Your task to perform on an android device: turn pop-ups on in chrome Image 0: 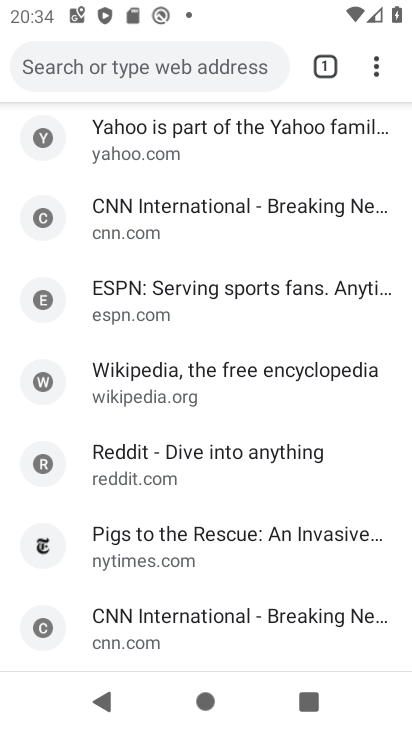
Step 0: press home button
Your task to perform on an android device: turn pop-ups on in chrome Image 1: 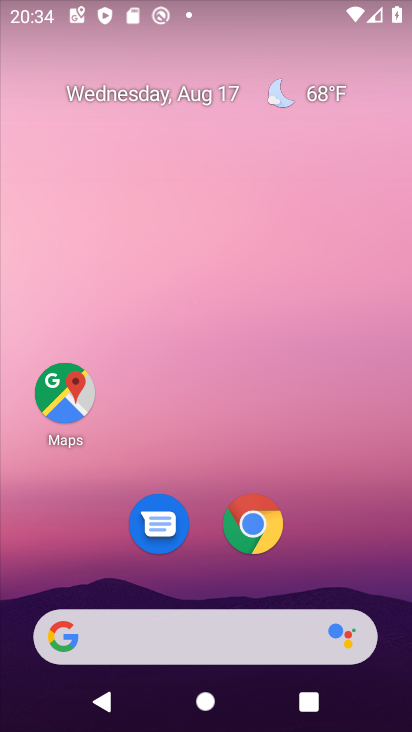
Step 1: click (258, 521)
Your task to perform on an android device: turn pop-ups on in chrome Image 2: 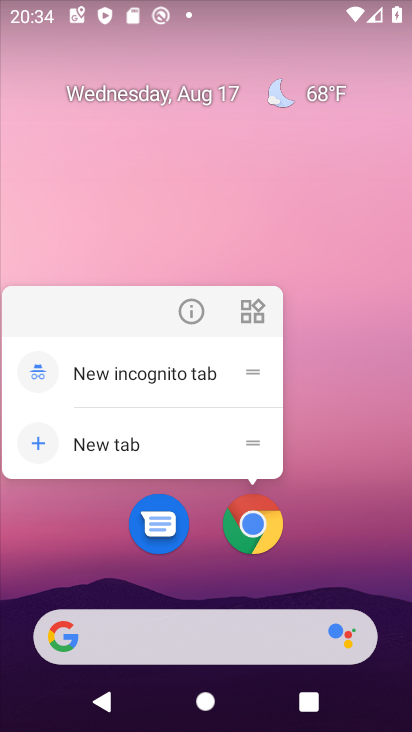
Step 2: click (257, 522)
Your task to perform on an android device: turn pop-ups on in chrome Image 3: 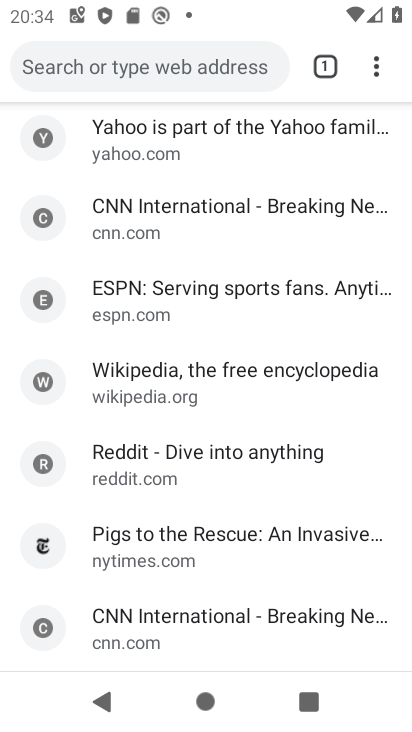
Step 3: press back button
Your task to perform on an android device: turn pop-ups on in chrome Image 4: 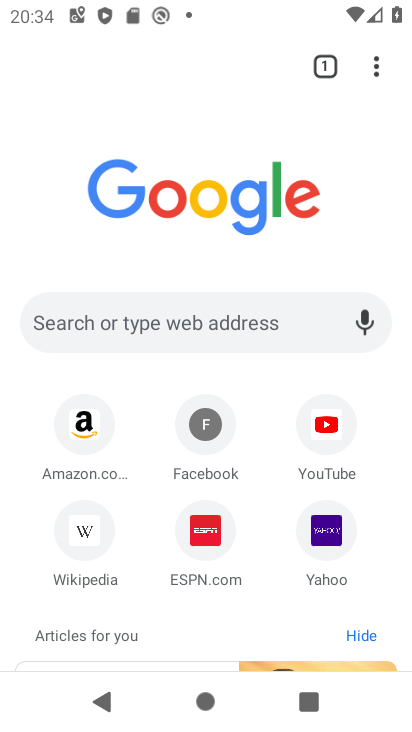
Step 4: click (377, 66)
Your task to perform on an android device: turn pop-ups on in chrome Image 5: 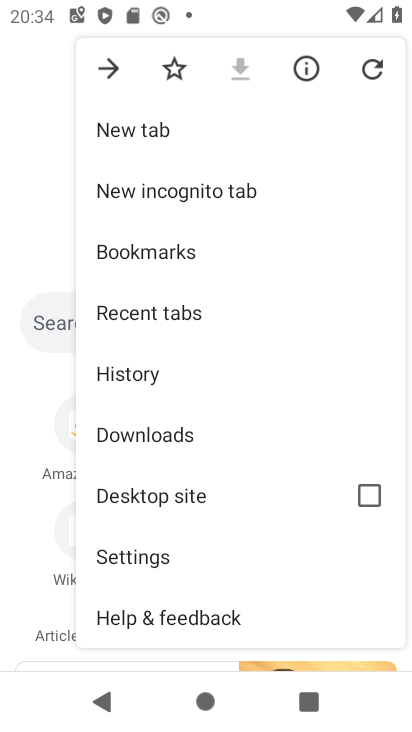
Step 5: click (161, 556)
Your task to perform on an android device: turn pop-ups on in chrome Image 6: 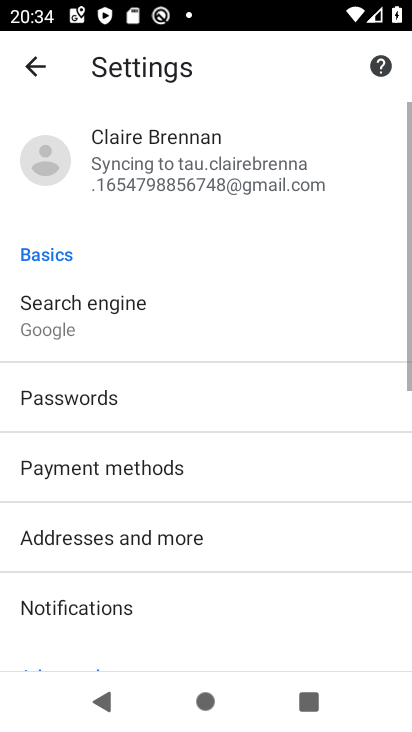
Step 6: drag from (220, 475) to (282, 23)
Your task to perform on an android device: turn pop-ups on in chrome Image 7: 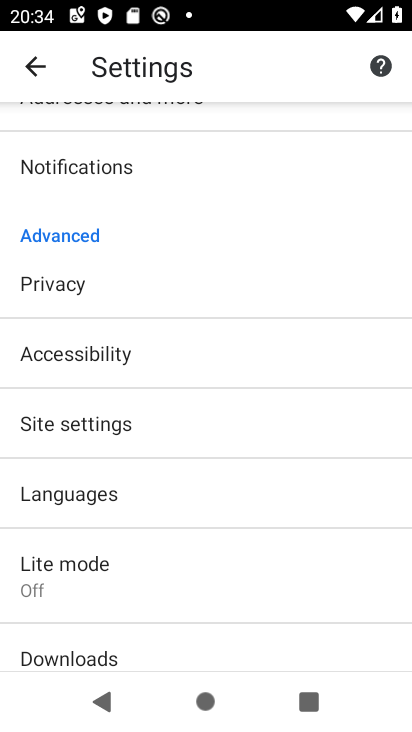
Step 7: click (143, 425)
Your task to perform on an android device: turn pop-ups on in chrome Image 8: 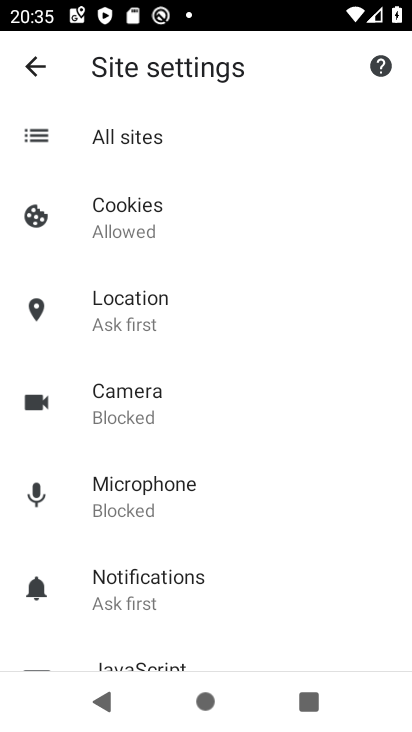
Step 8: drag from (219, 537) to (254, 224)
Your task to perform on an android device: turn pop-ups on in chrome Image 9: 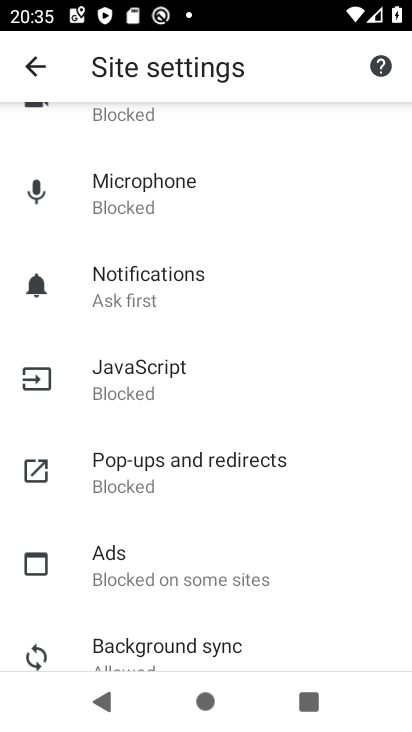
Step 9: click (217, 471)
Your task to perform on an android device: turn pop-ups on in chrome Image 10: 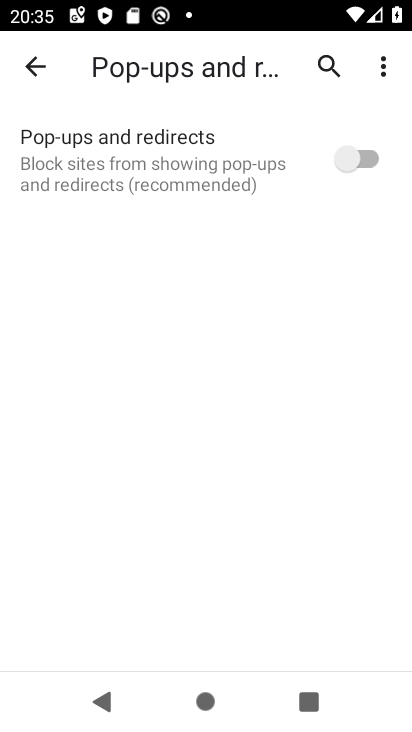
Step 10: click (365, 155)
Your task to perform on an android device: turn pop-ups on in chrome Image 11: 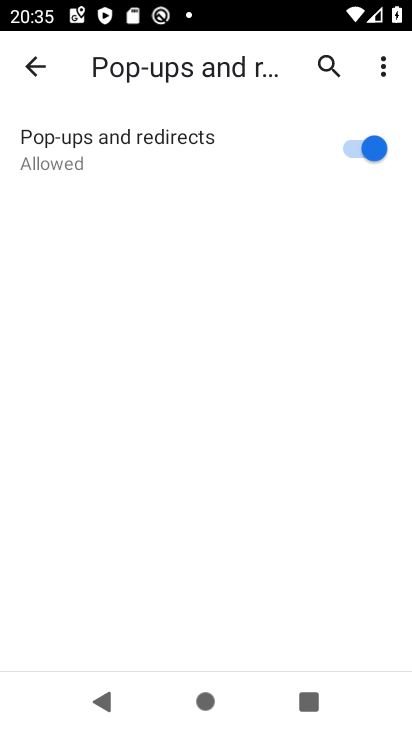
Step 11: task complete